Your task to perform on an android device: Open Chrome and go to settings Image 0: 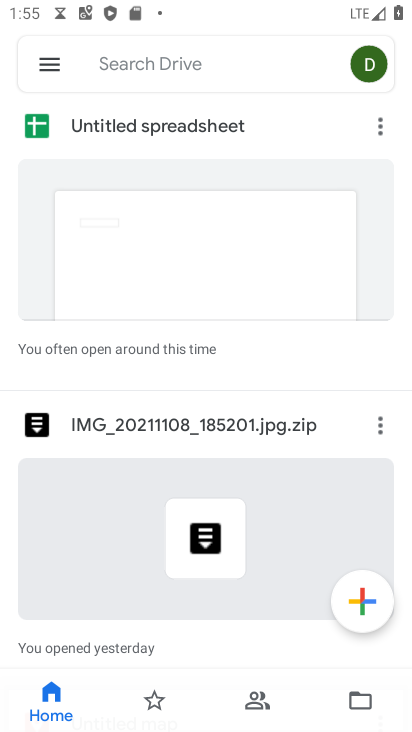
Step 0: press home button
Your task to perform on an android device: Open Chrome and go to settings Image 1: 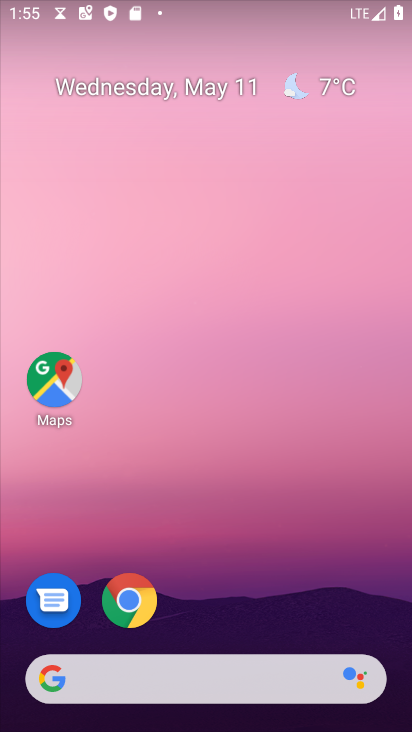
Step 1: click (136, 599)
Your task to perform on an android device: Open Chrome and go to settings Image 2: 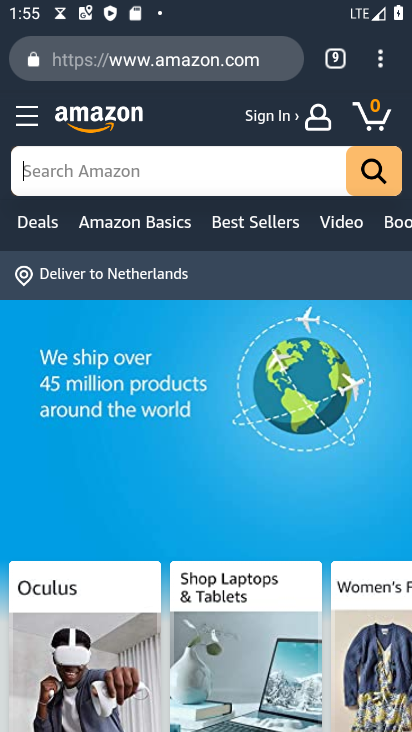
Step 2: click (366, 65)
Your task to perform on an android device: Open Chrome and go to settings Image 3: 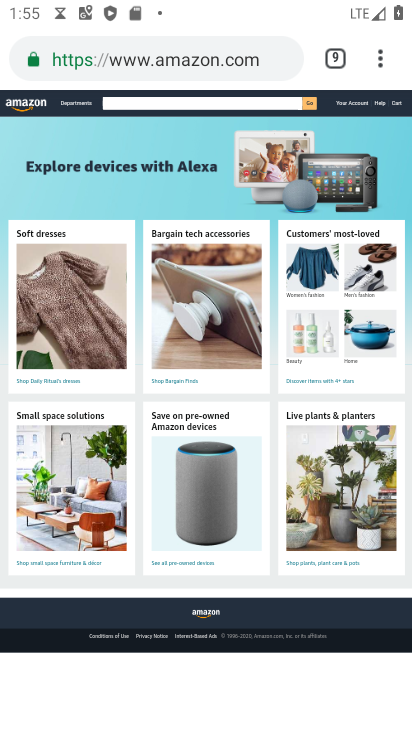
Step 3: click (372, 53)
Your task to perform on an android device: Open Chrome and go to settings Image 4: 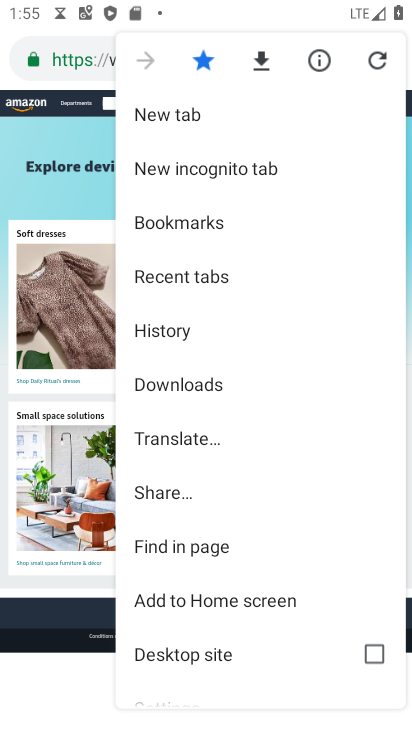
Step 4: drag from (240, 611) to (234, 260)
Your task to perform on an android device: Open Chrome and go to settings Image 5: 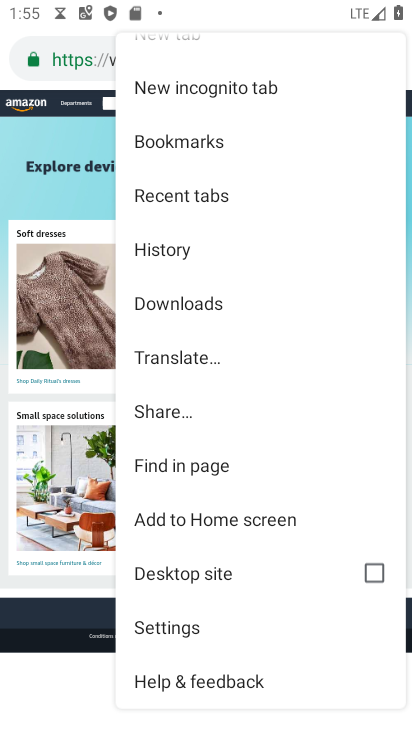
Step 5: click (186, 635)
Your task to perform on an android device: Open Chrome and go to settings Image 6: 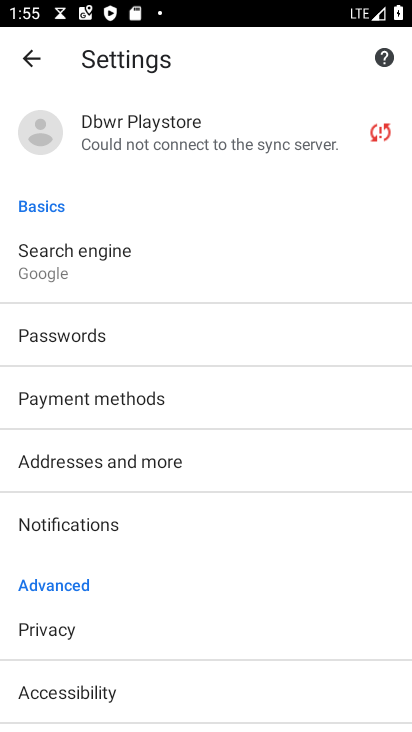
Step 6: task complete